Your task to perform on an android device: Search for seafood restaurants on Google Maps Image 0: 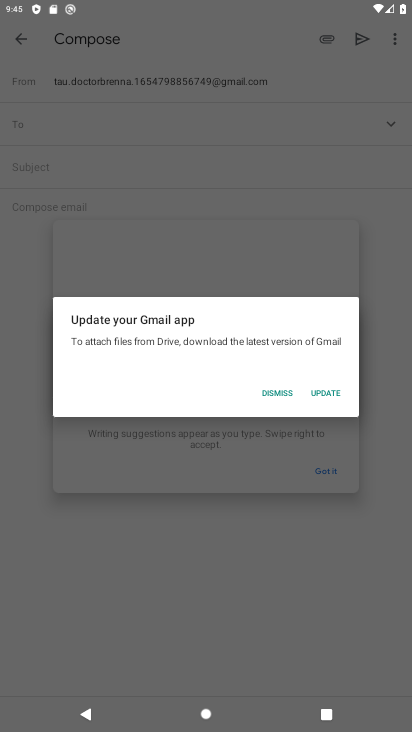
Step 0: click (397, 502)
Your task to perform on an android device: Search for seafood restaurants on Google Maps Image 1: 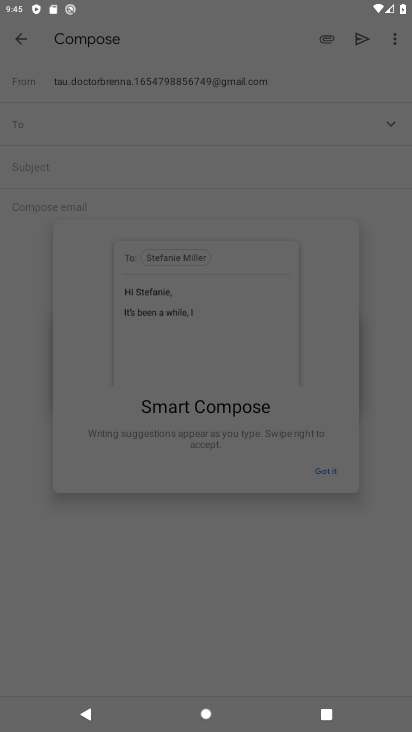
Step 1: press home button
Your task to perform on an android device: Search for seafood restaurants on Google Maps Image 2: 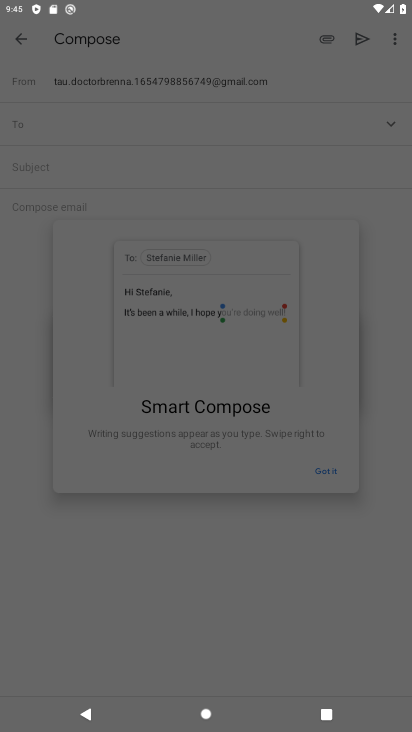
Step 2: press home button
Your task to perform on an android device: Search for seafood restaurants on Google Maps Image 3: 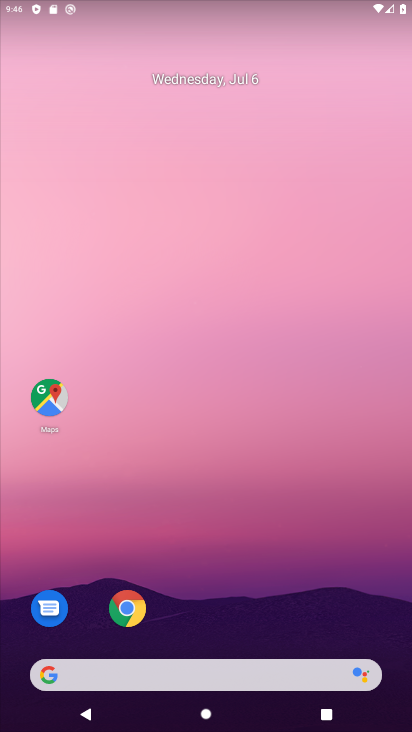
Step 3: press home button
Your task to perform on an android device: Search for seafood restaurants on Google Maps Image 4: 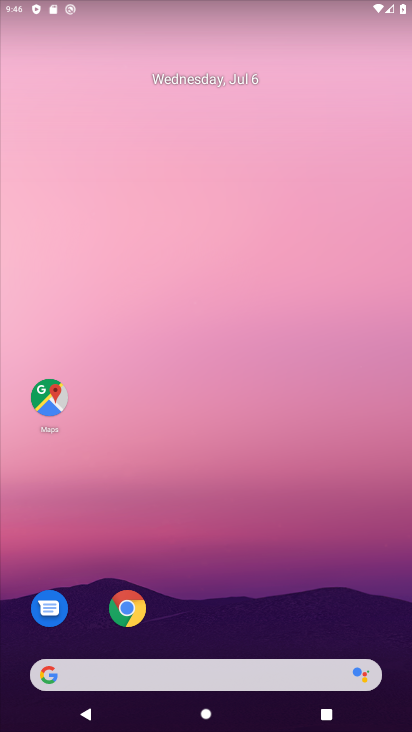
Step 4: drag from (232, 664) to (328, 76)
Your task to perform on an android device: Search for seafood restaurants on Google Maps Image 5: 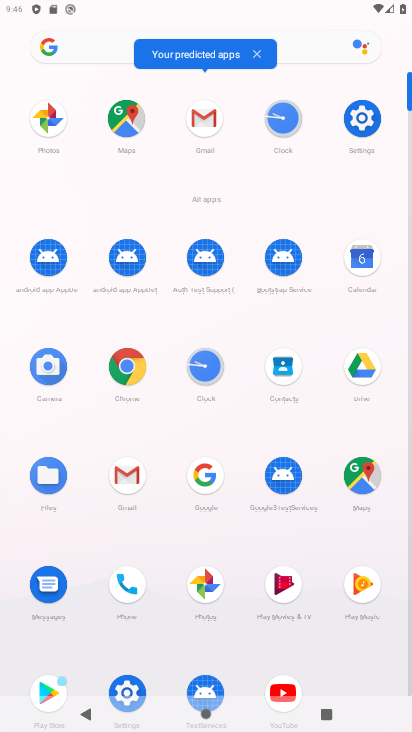
Step 5: click (367, 455)
Your task to perform on an android device: Search for seafood restaurants on Google Maps Image 6: 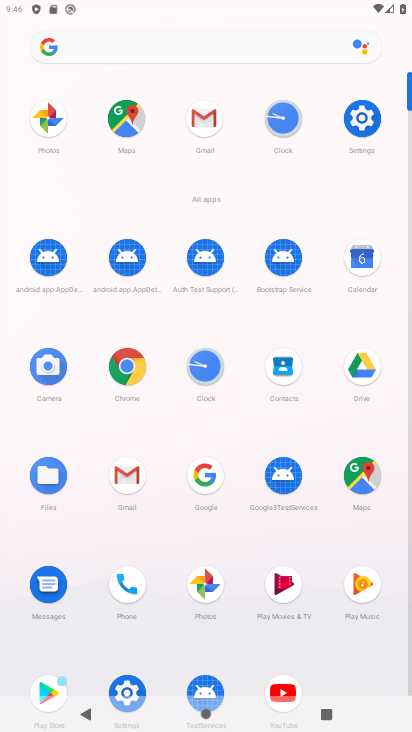
Step 6: click (356, 480)
Your task to perform on an android device: Search for seafood restaurants on Google Maps Image 7: 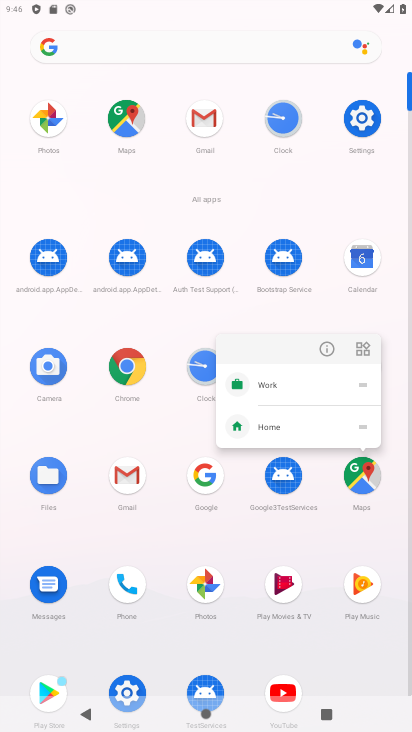
Step 7: click (357, 483)
Your task to perform on an android device: Search for seafood restaurants on Google Maps Image 8: 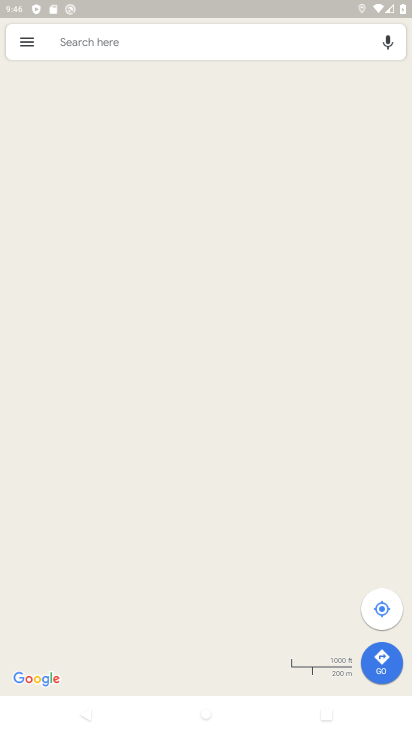
Step 8: click (134, 32)
Your task to perform on an android device: Search for seafood restaurants on Google Maps Image 9: 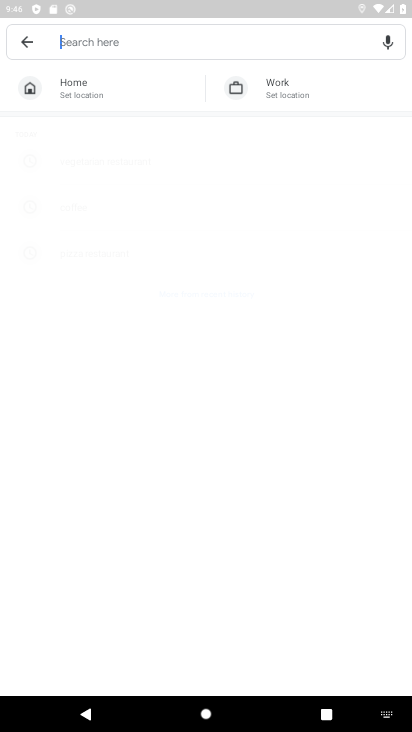
Step 9: type "seafood restaurants"
Your task to perform on an android device: Search for seafood restaurants on Google Maps Image 10: 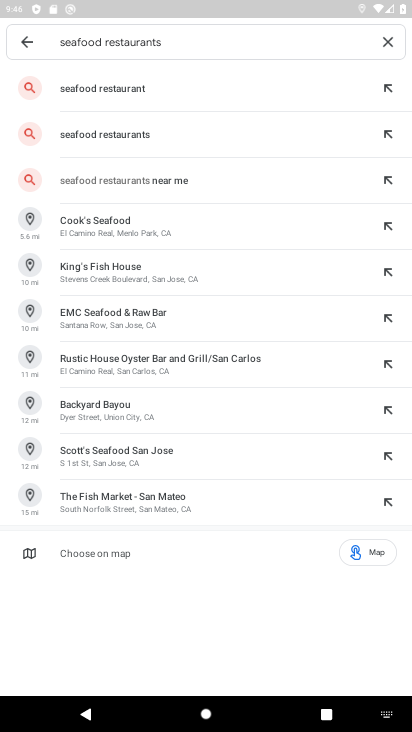
Step 10: click (167, 91)
Your task to perform on an android device: Search for seafood restaurants on Google Maps Image 11: 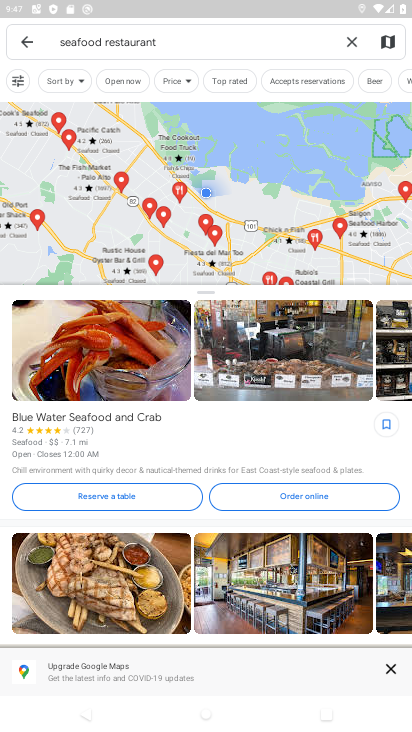
Step 11: task complete